Your task to perform on an android device: stop showing notifications on the lock screen Image 0: 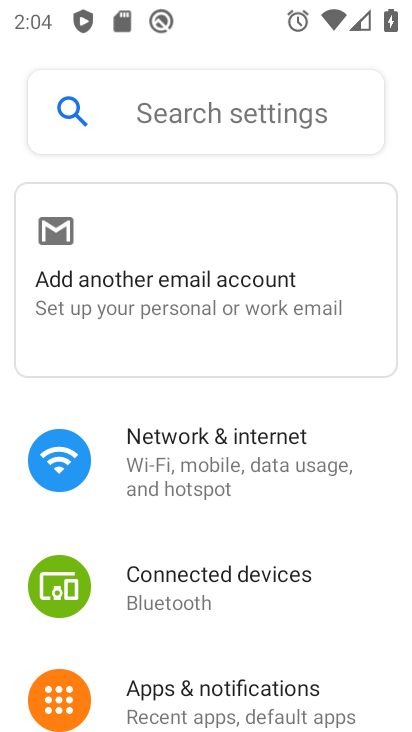
Step 0: press home button
Your task to perform on an android device: stop showing notifications on the lock screen Image 1: 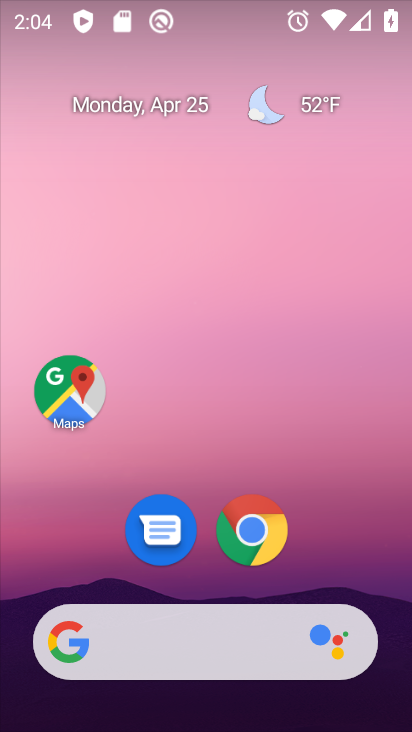
Step 1: drag from (341, 538) to (395, 94)
Your task to perform on an android device: stop showing notifications on the lock screen Image 2: 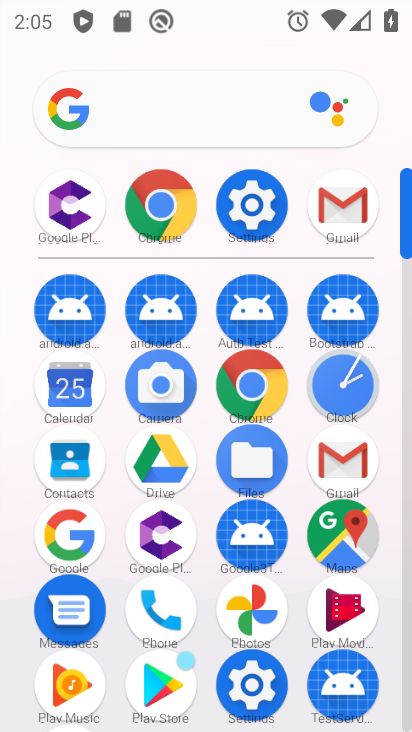
Step 2: click (246, 698)
Your task to perform on an android device: stop showing notifications on the lock screen Image 3: 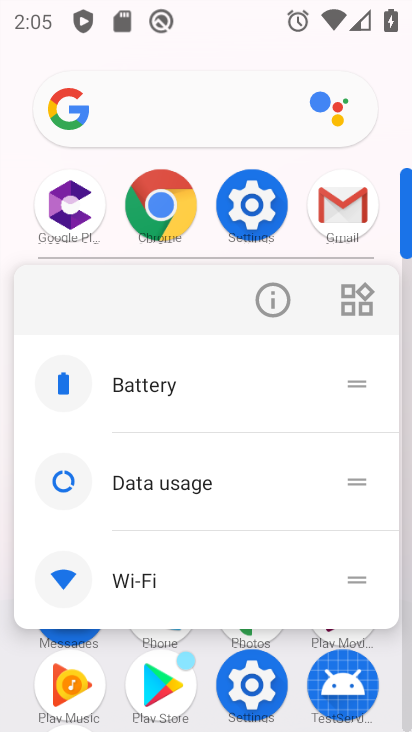
Step 3: click (245, 693)
Your task to perform on an android device: stop showing notifications on the lock screen Image 4: 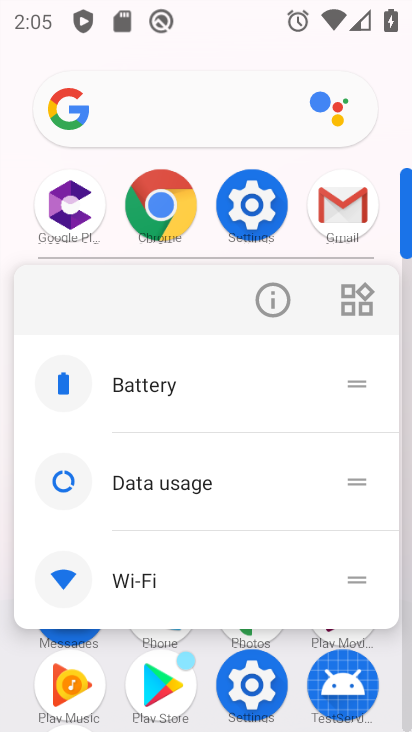
Step 4: click (249, 702)
Your task to perform on an android device: stop showing notifications on the lock screen Image 5: 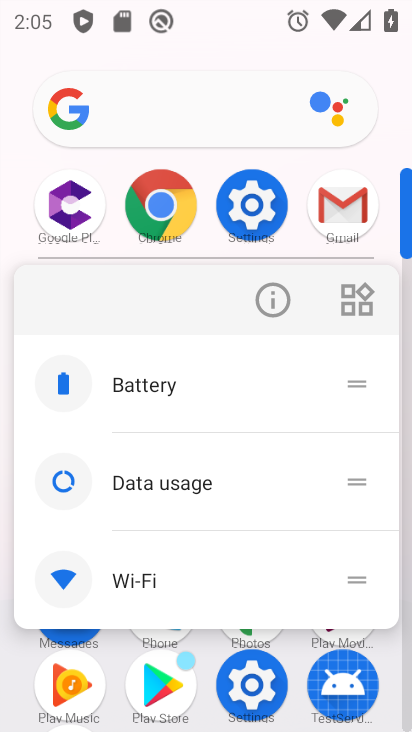
Step 5: click (240, 704)
Your task to perform on an android device: stop showing notifications on the lock screen Image 6: 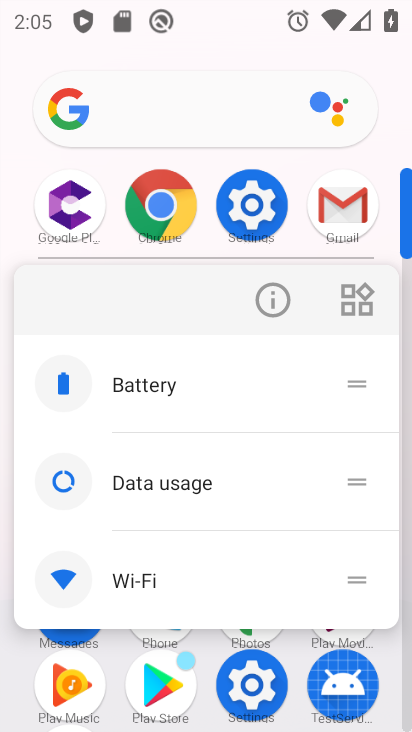
Step 6: click (228, 699)
Your task to perform on an android device: stop showing notifications on the lock screen Image 7: 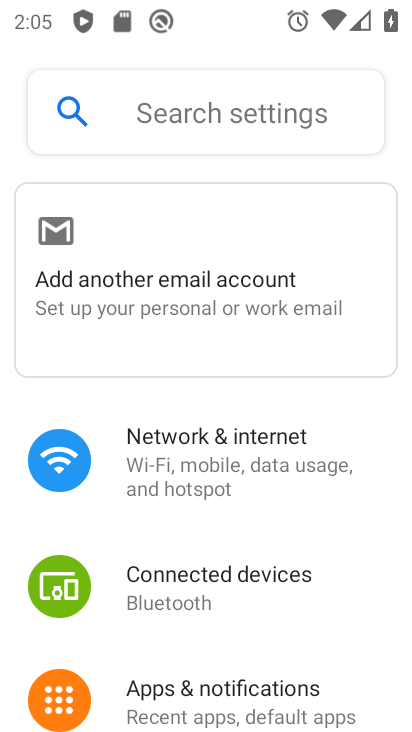
Step 7: drag from (329, 689) to (351, 402)
Your task to perform on an android device: stop showing notifications on the lock screen Image 8: 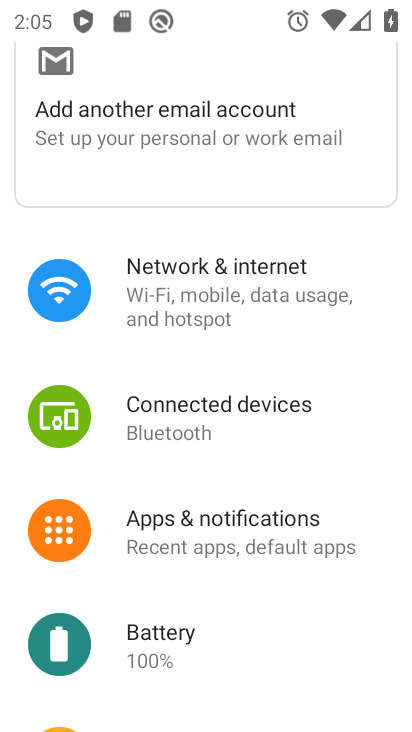
Step 8: drag from (309, 614) to (356, 374)
Your task to perform on an android device: stop showing notifications on the lock screen Image 9: 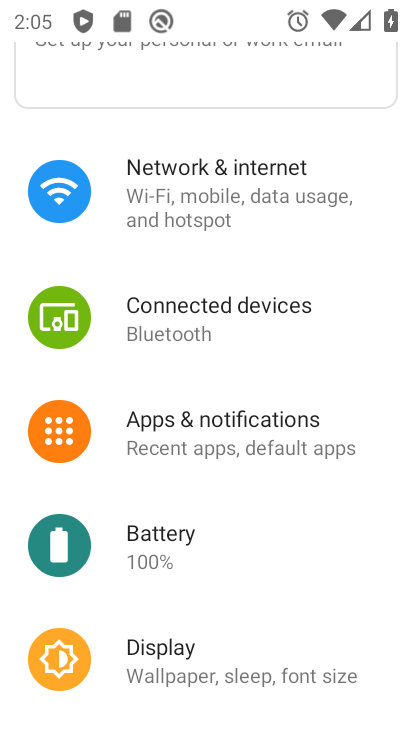
Step 9: drag from (286, 594) to (324, 311)
Your task to perform on an android device: stop showing notifications on the lock screen Image 10: 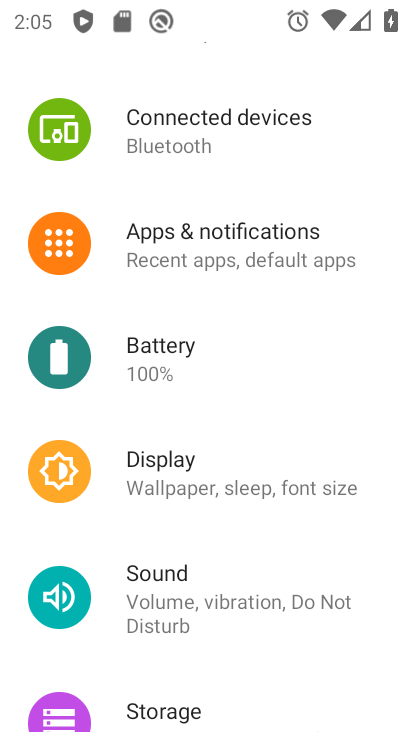
Step 10: click (230, 251)
Your task to perform on an android device: stop showing notifications on the lock screen Image 11: 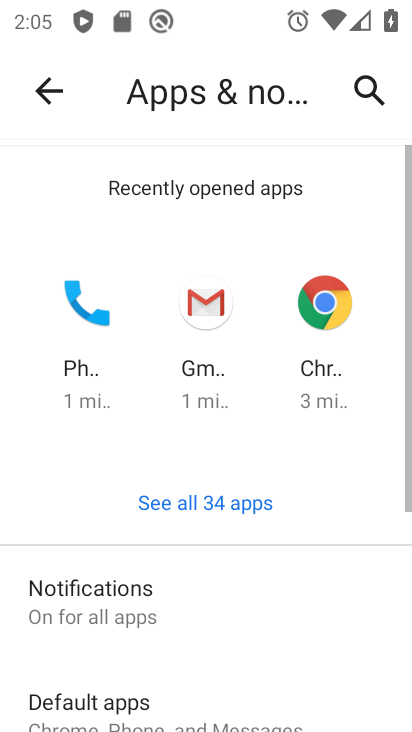
Step 11: drag from (244, 573) to (261, 263)
Your task to perform on an android device: stop showing notifications on the lock screen Image 12: 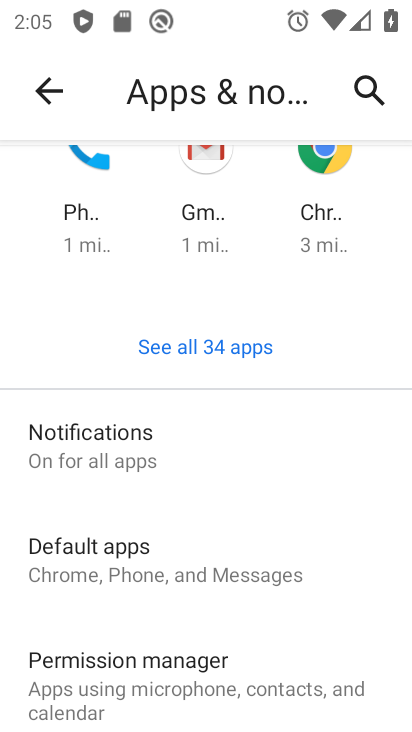
Step 12: drag from (179, 612) to (224, 275)
Your task to perform on an android device: stop showing notifications on the lock screen Image 13: 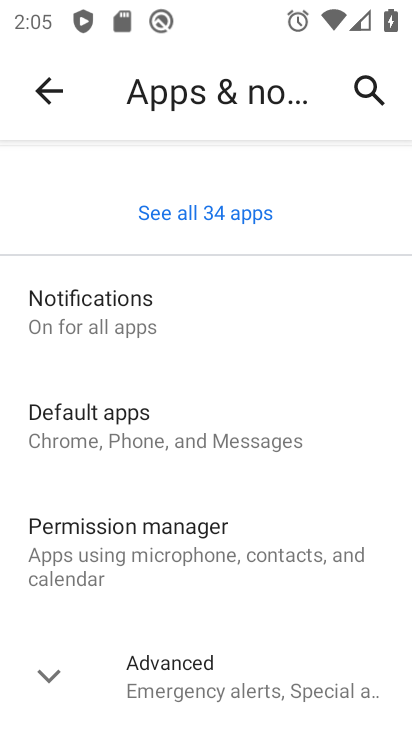
Step 13: click (87, 327)
Your task to perform on an android device: stop showing notifications on the lock screen Image 14: 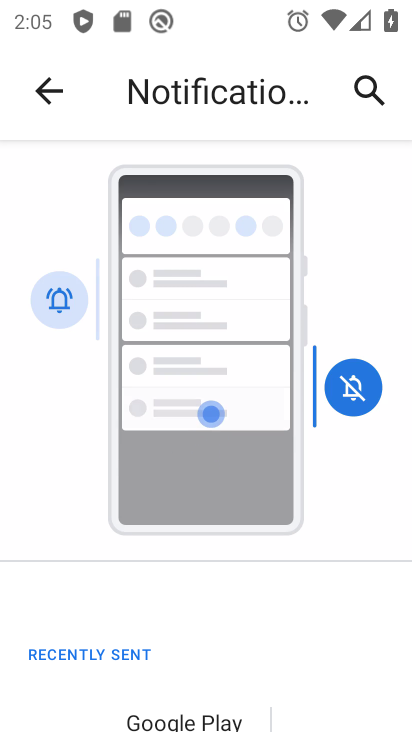
Step 14: drag from (209, 628) to (338, 229)
Your task to perform on an android device: stop showing notifications on the lock screen Image 15: 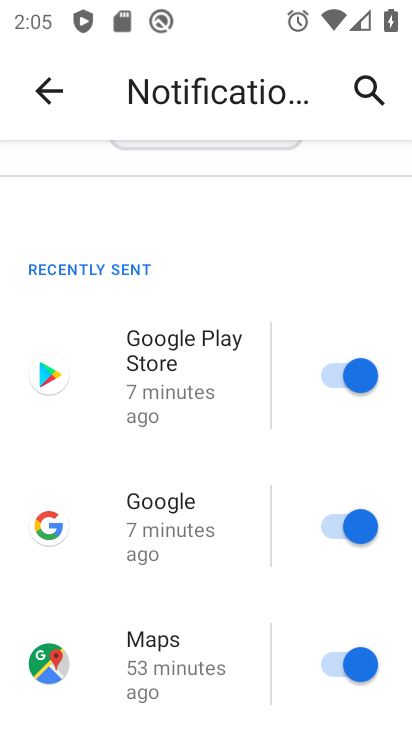
Step 15: drag from (143, 700) to (289, 274)
Your task to perform on an android device: stop showing notifications on the lock screen Image 16: 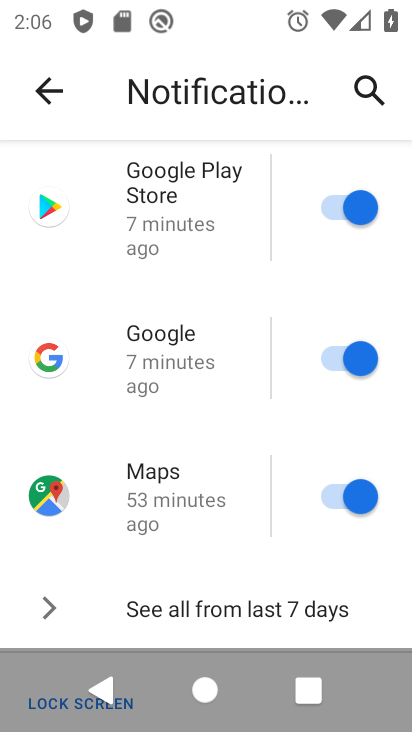
Step 16: drag from (116, 586) to (274, 186)
Your task to perform on an android device: stop showing notifications on the lock screen Image 17: 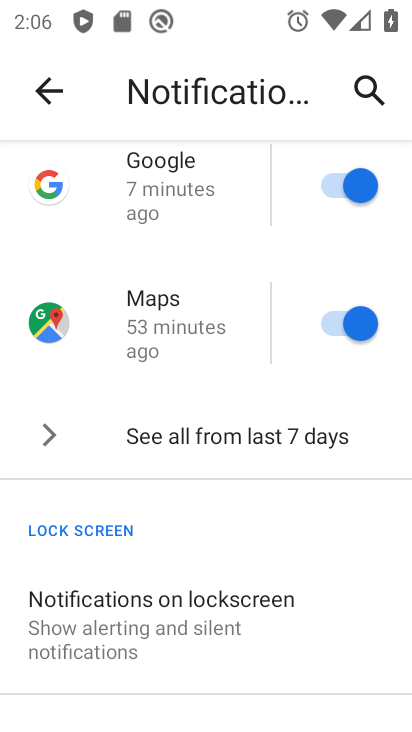
Step 17: click (131, 614)
Your task to perform on an android device: stop showing notifications on the lock screen Image 18: 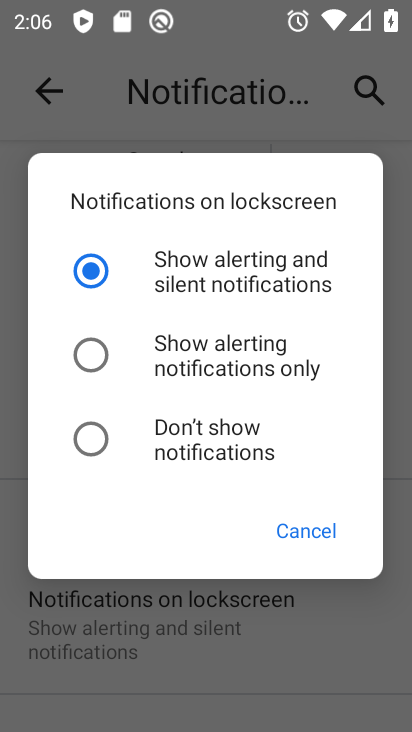
Step 18: click (128, 437)
Your task to perform on an android device: stop showing notifications on the lock screen Image 19: 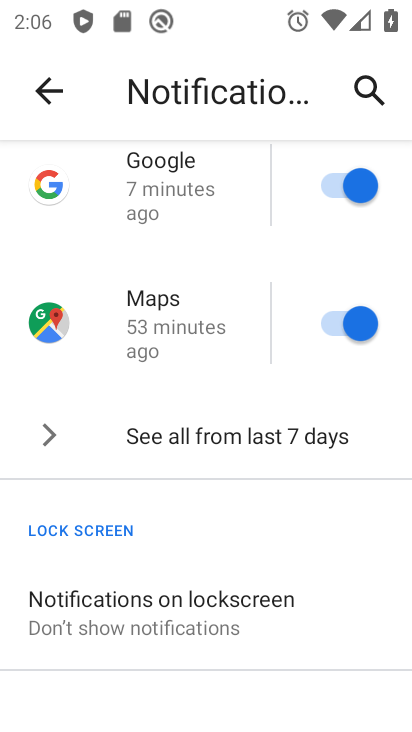
Step 19: task complete